Your task to perform on an android device: turn on location history Image 0: 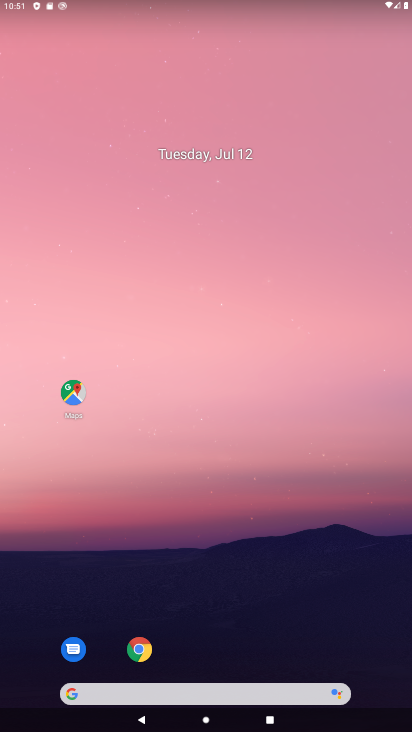
Step 0: press home button
Your task to perform on an android device: turn on location history Image 1: 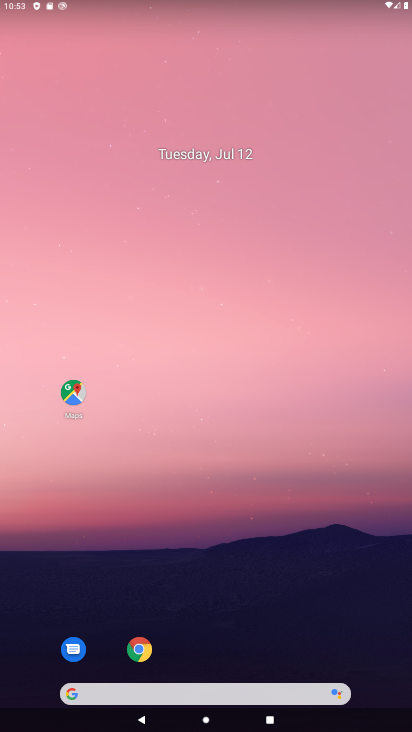
Step 1: drag from (293, 653) to (227, 98)
Your task to perform on an android device: turn on location history Image 2: 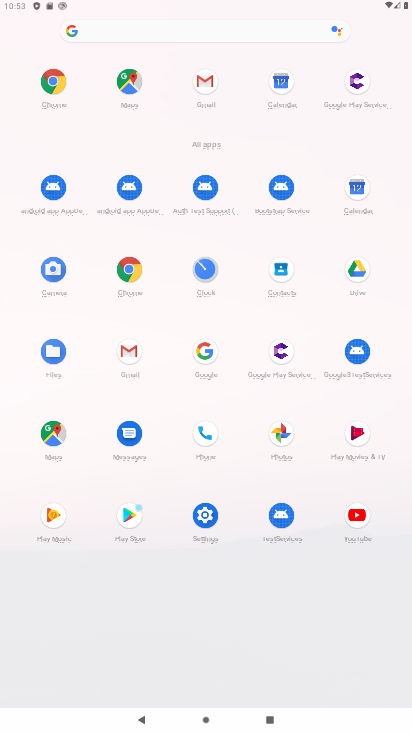
Step 2: click (133, 90)
Your task to perform on an android device: turn on location history Image 3: 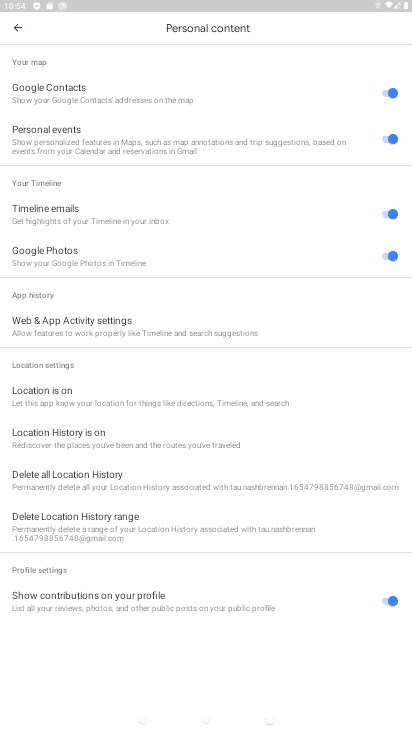
Step 3: click (64, 434)
Your task to perform on an android device: turn on location history Image 4: 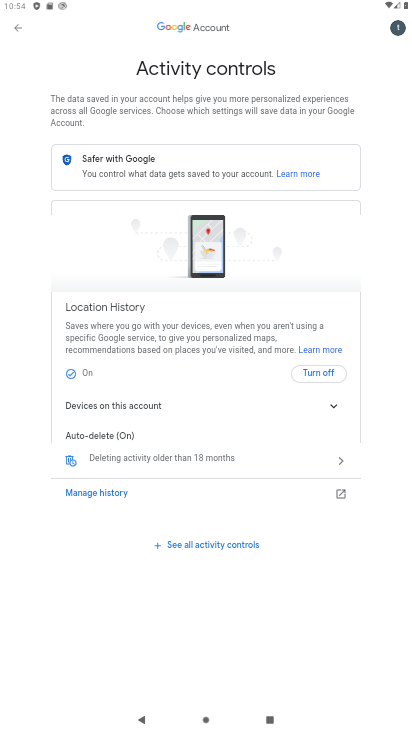
Step 4: task complete